Your task to perform on an android device: change text size in settings app Image 0: 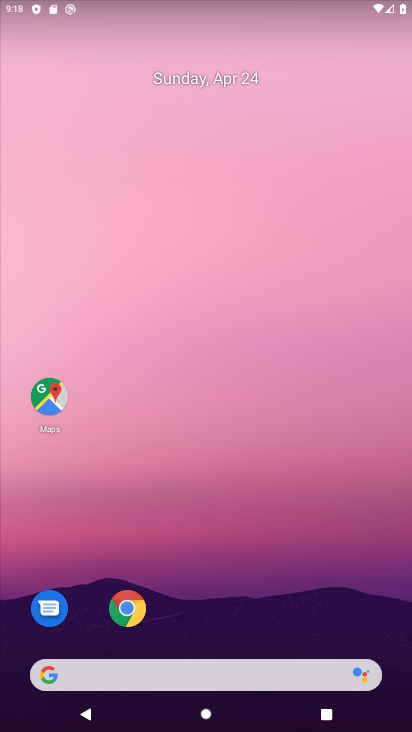
Step 0: click (271, 224)
Your task to perform on an android device: change text size in settings app Image 1: 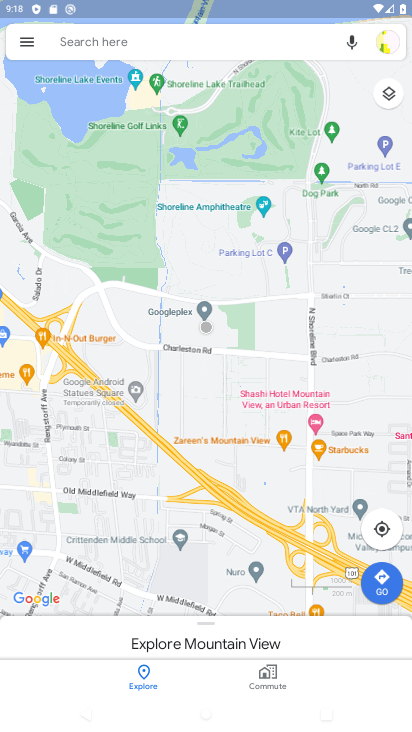
Step 1: press home button
Your task to perform on an android device: change text size in settings app Image 2: 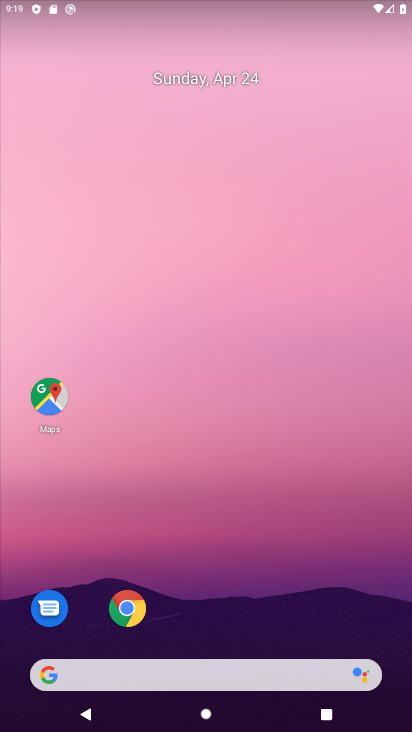
Step 2: drag from (344, 688) to (353, 200)
Your task to perform on an android device: change text size in settings app Image 3: 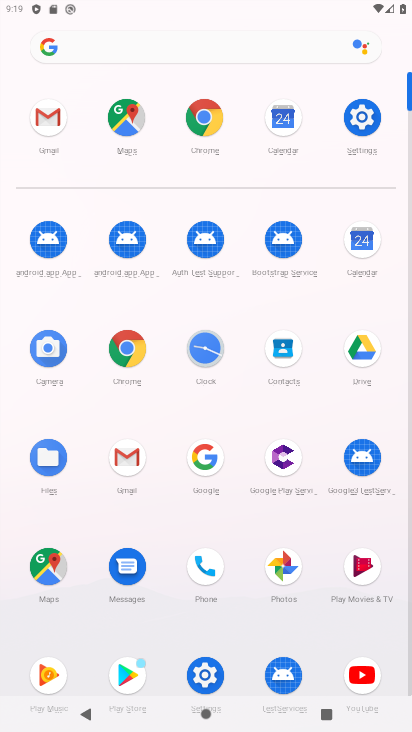
Step 3: click (361, 104)
Your task to perform on an android device: change text size in settings app Image 4: 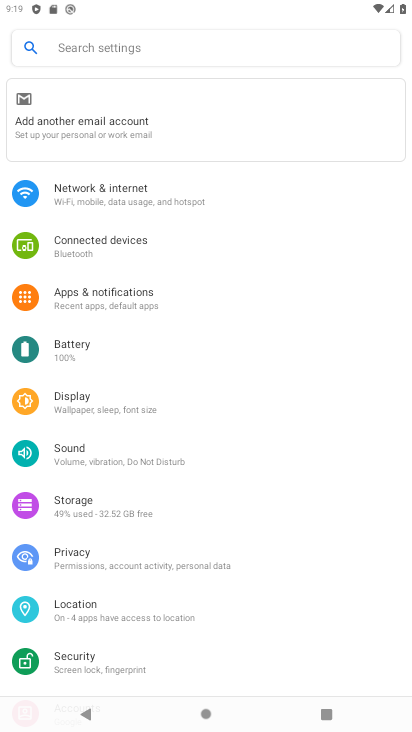
Step 4: click (123, 51)
Your task to perform on an android device: change text size in settings app Image 5: 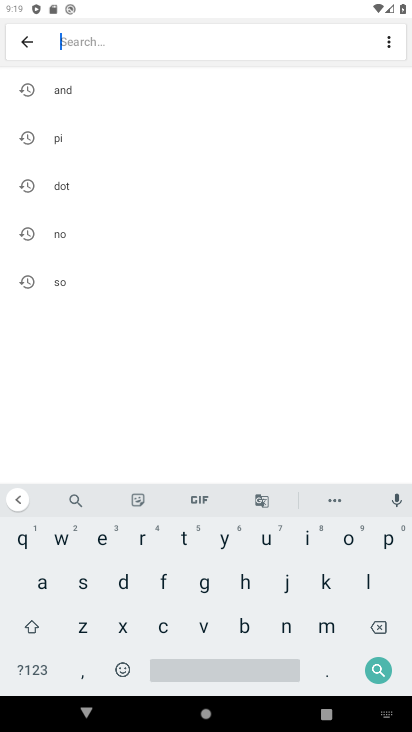
Step 5: click (88, 587)
Your task to perform on an android device: change text size in settings app Image 6: 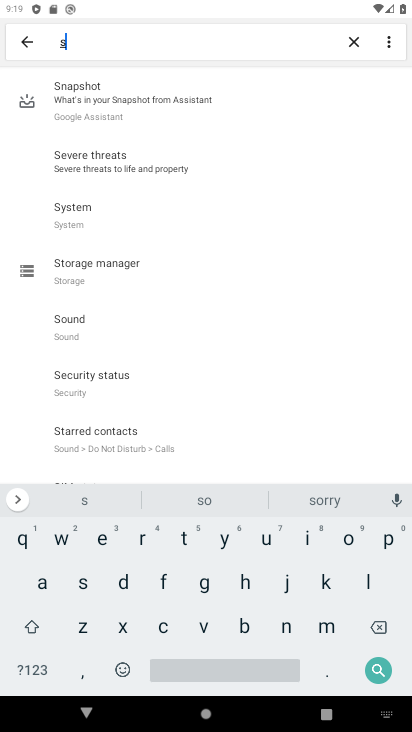
Step 6: click (309, 536)
Your task to perform on an android device: change text size in settings app Image 7: 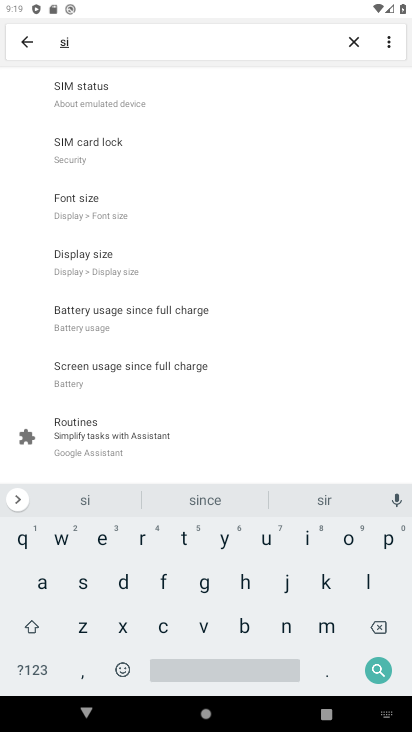
Step 7: click (78, 624)
Your task to perform on an android device: change text size in settings app Image 8: 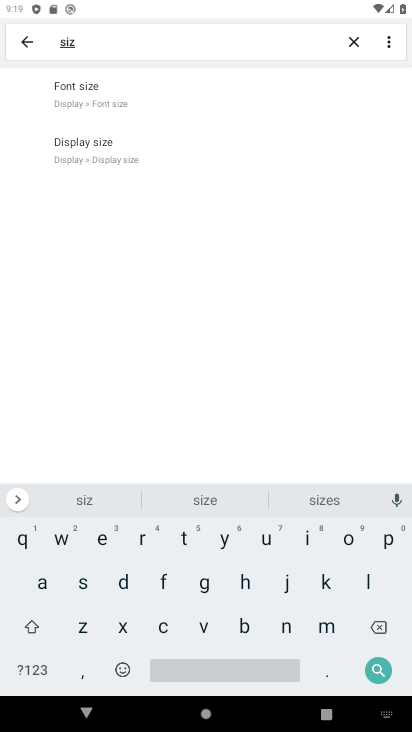
Step 8: click (108, 90)
Your task to perform on an android device: change text size in settings app Image 9: 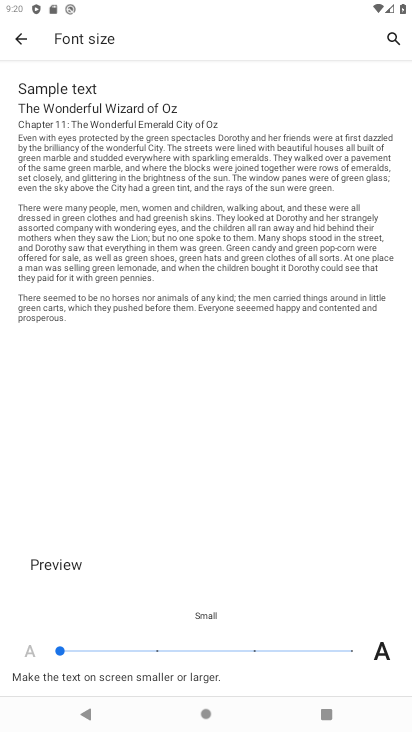
Step 9: click (107, 651)
Your task to perform on an android device: change text size in settings app Image 10: 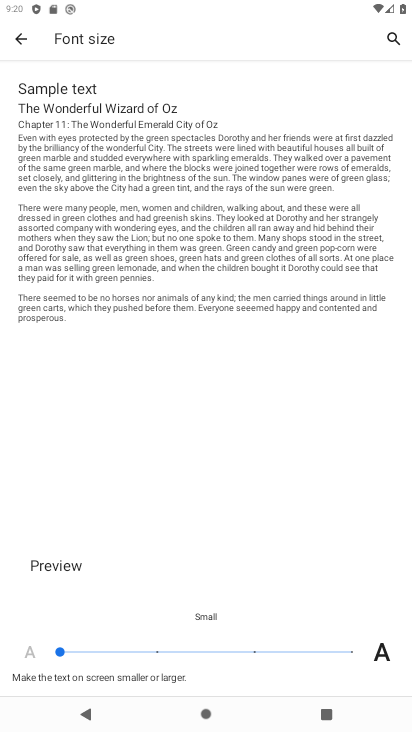
Step 10: click (151, 655)
Your task to perform on an android device: change text size in settings app Image 11: 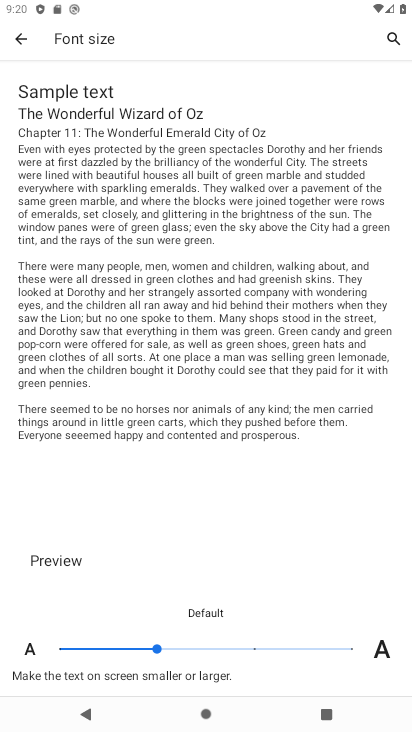
Step 11: task complete